Your task to perform on an android device: Open Amazon Image 0: 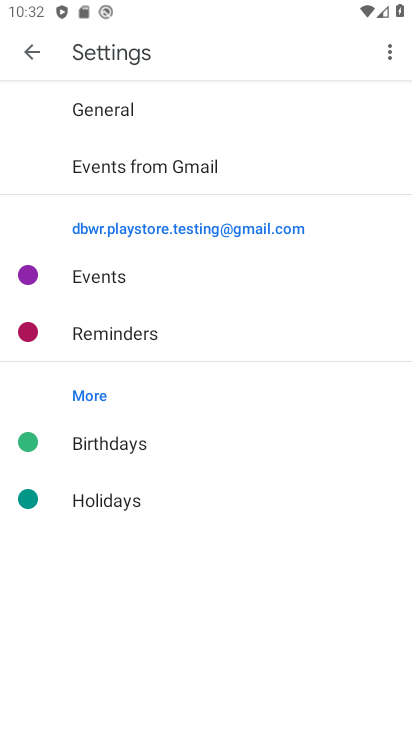
Step 0: press home button
Your task to perform on an android device: Open Amazon Image 1: 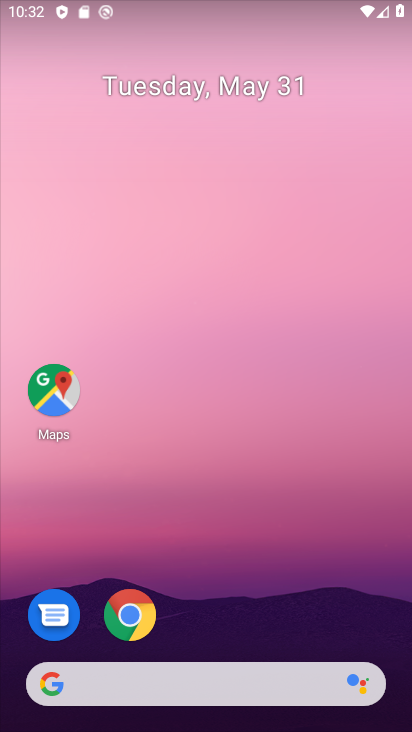
Step 1: click (147, 584)
Your task to perform on an android device: Open Amazon Image 2: 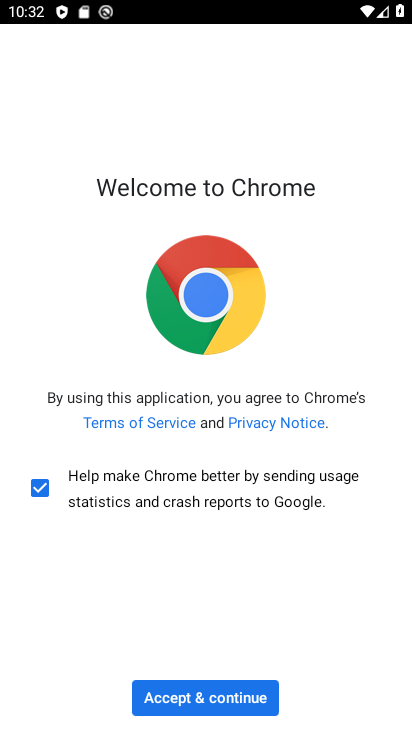
Step 2: click (183, 689)
Your task to perform on an android device: Open Amazon Image 3: 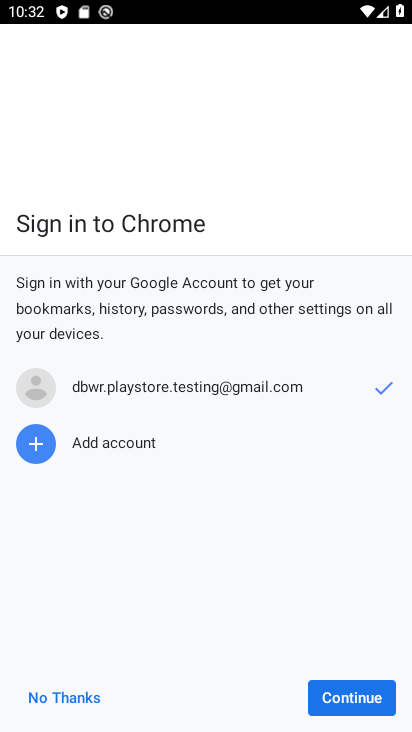
Step 3: click (367, 697)
Your task to perform on an android device: Open Amazon Image 4: 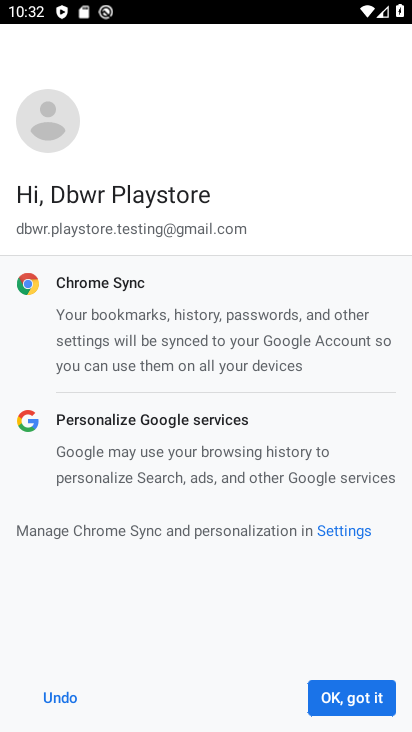
Step 4: click (367, 697)
Your task to perform on an android device: Open Amazon Image 5: 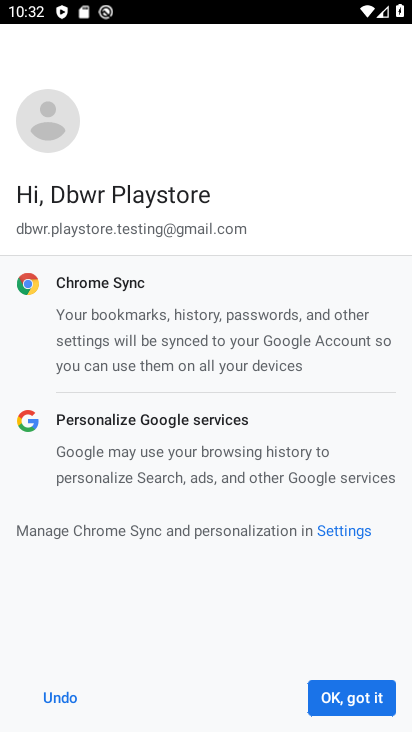
Step 5: click (367, 697)
Your task to perform on an android device: Open Amazon Image 6: 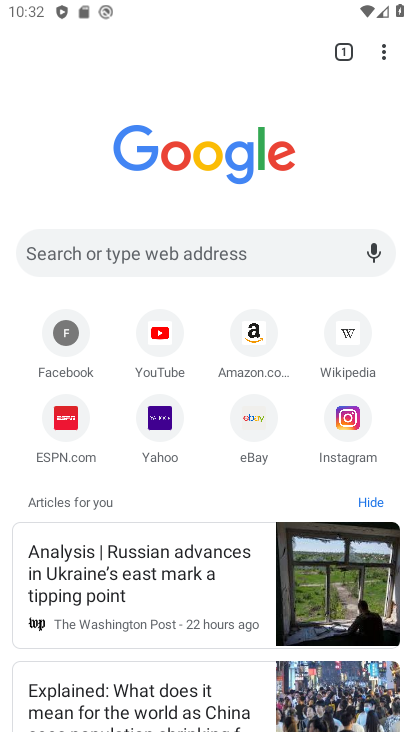
Step 6: task complete